Your task to perform on an android device: Search for "razer blade" on ebay, select the first entry, add it to the cart, then select checkout. Image 0: 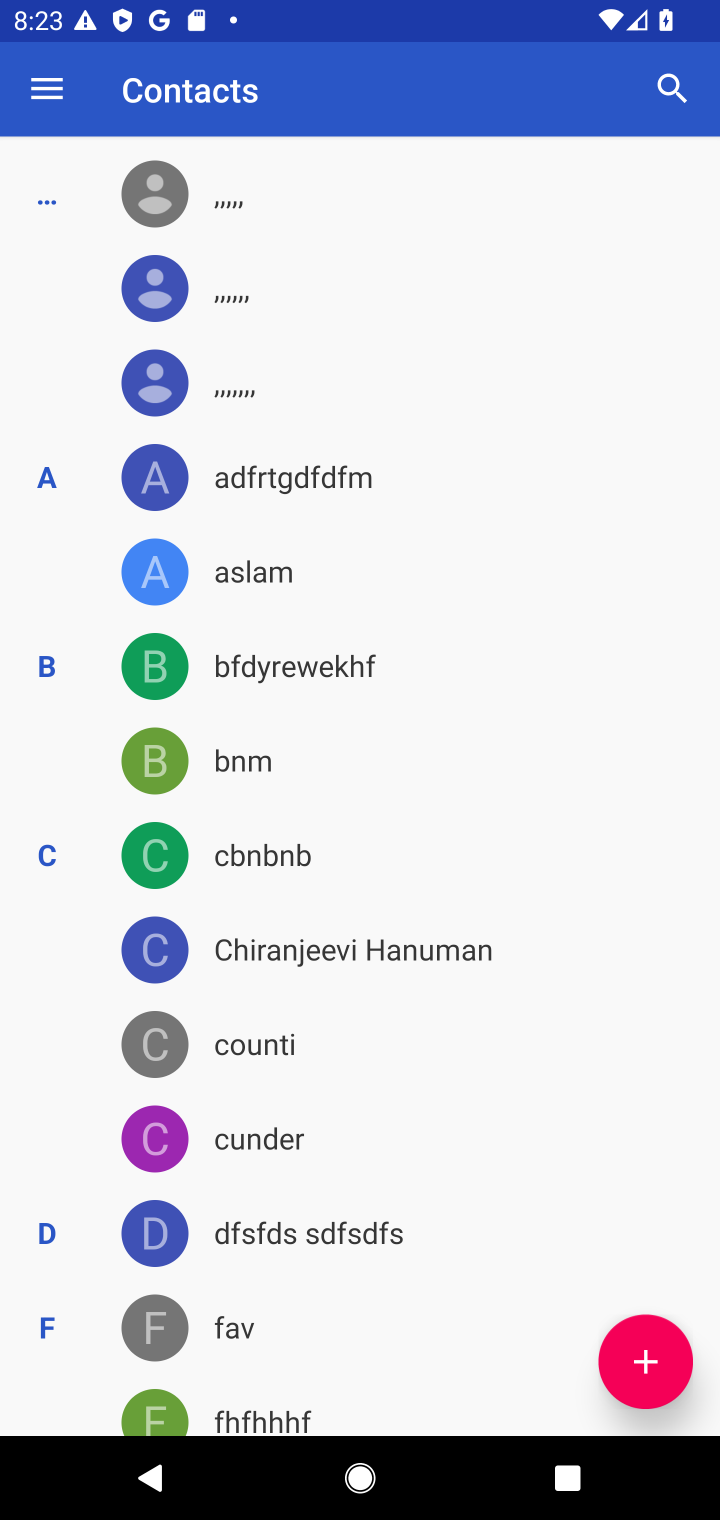
Step 0: press home button
Your task to perform on an android device: Search for "razer blade" on ebay, select the first entry, add it to the cart, then select checkout. Image 1: 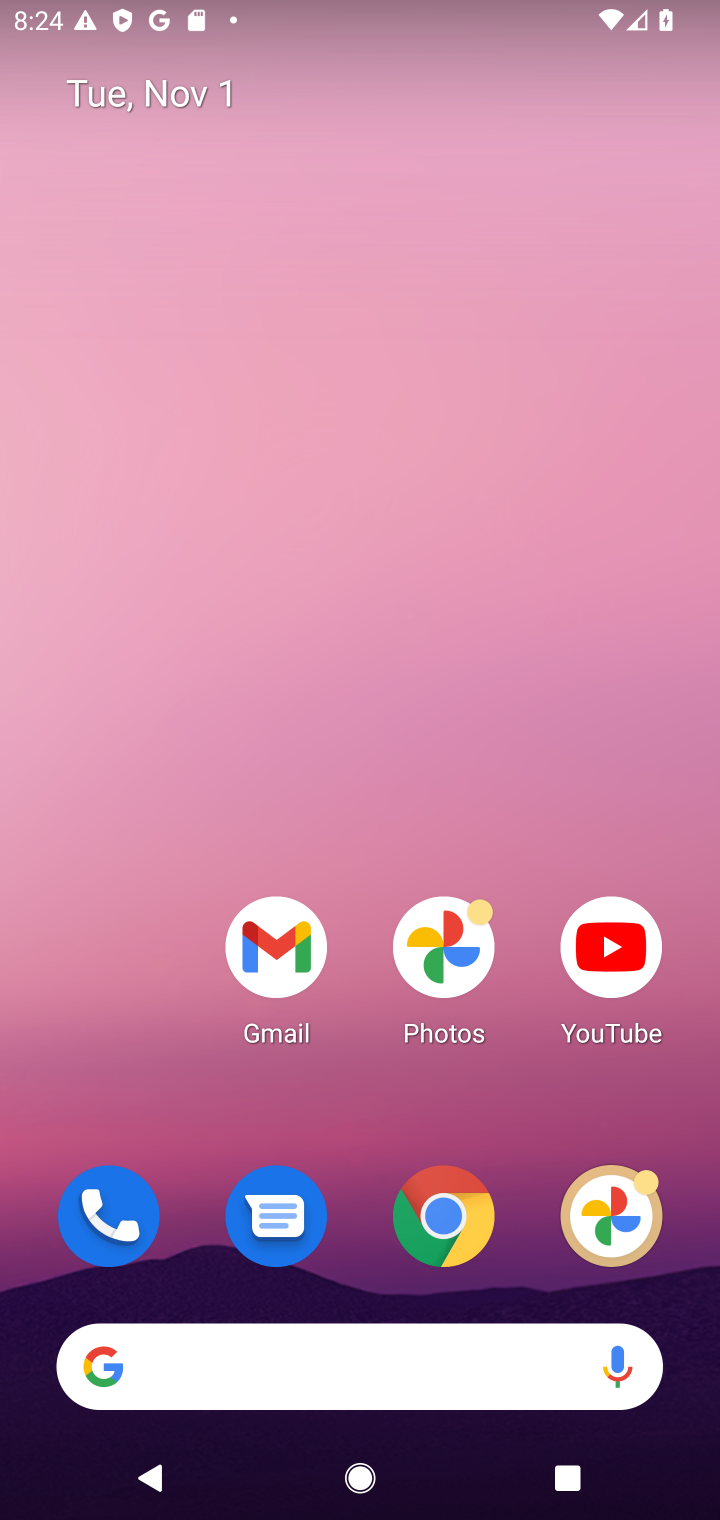
Step 1: click (427, 1224)
Your task to perform on an android device: Search for "razer blade" on ebay, select the first entry, add it to the cart, then select checkout. Image 2: 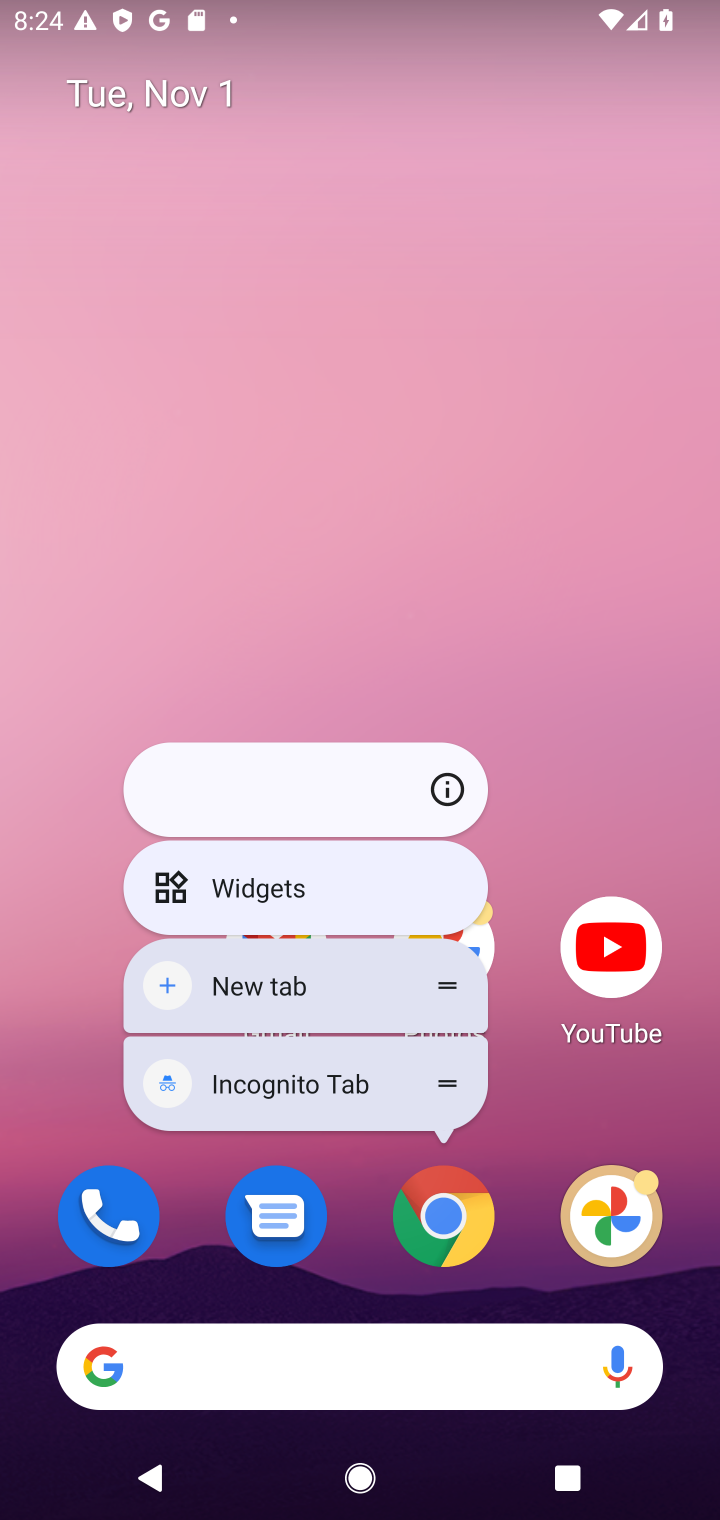
Step 2: click (458, 1192)
Your task to perform on an android device: Search for "razer blade" on ebay, select the first entry, add it to the cart, then select checkout. Image 3: 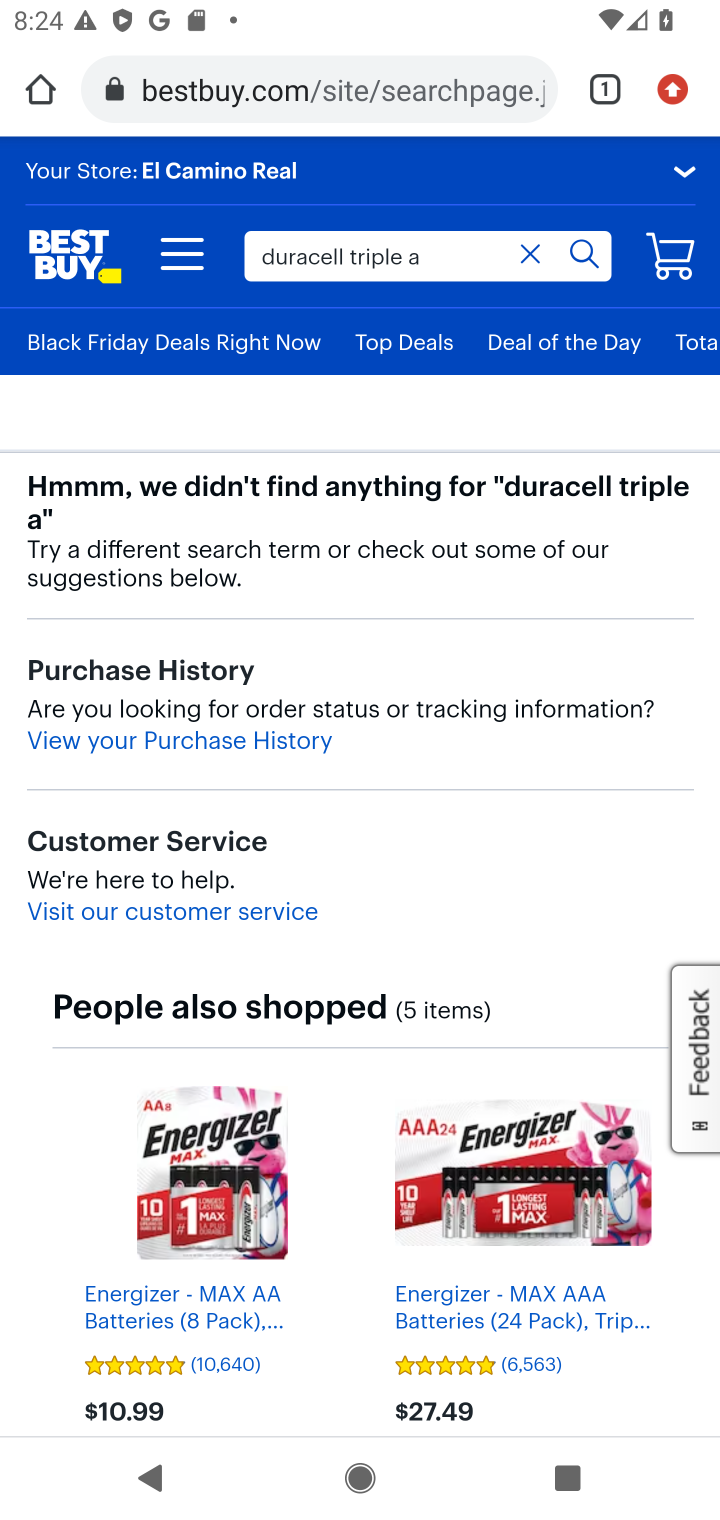
Step 3: click (361, 92)
Your task to perform on an android device: Search for "razer blade" on ebay, select the first entry, add it to the cart, then select checkout. Image 4: 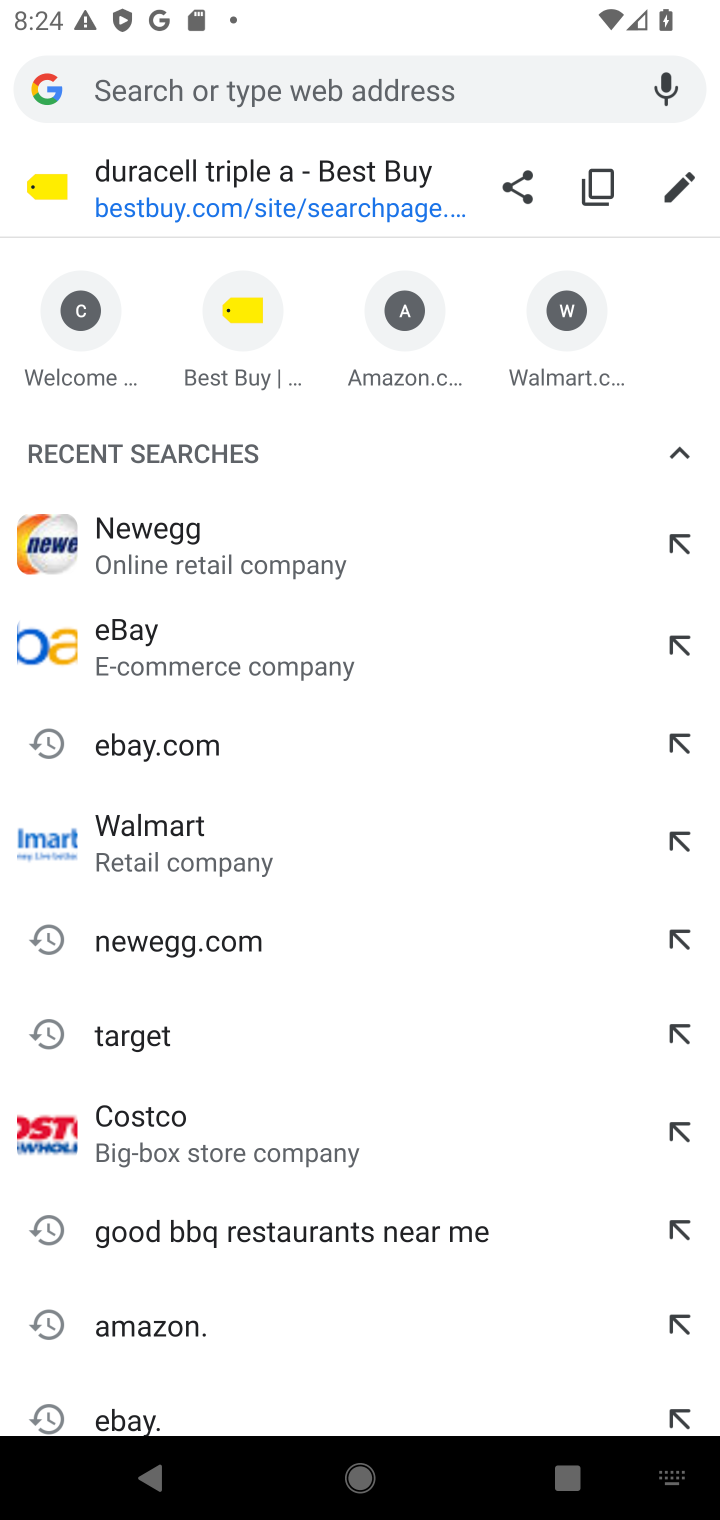
Step 4: type "ebay"
Your task to perform on an android device: Search for "razer blade" on ebay, select the first entry, add it to the cart, then select checkout. Image 5: 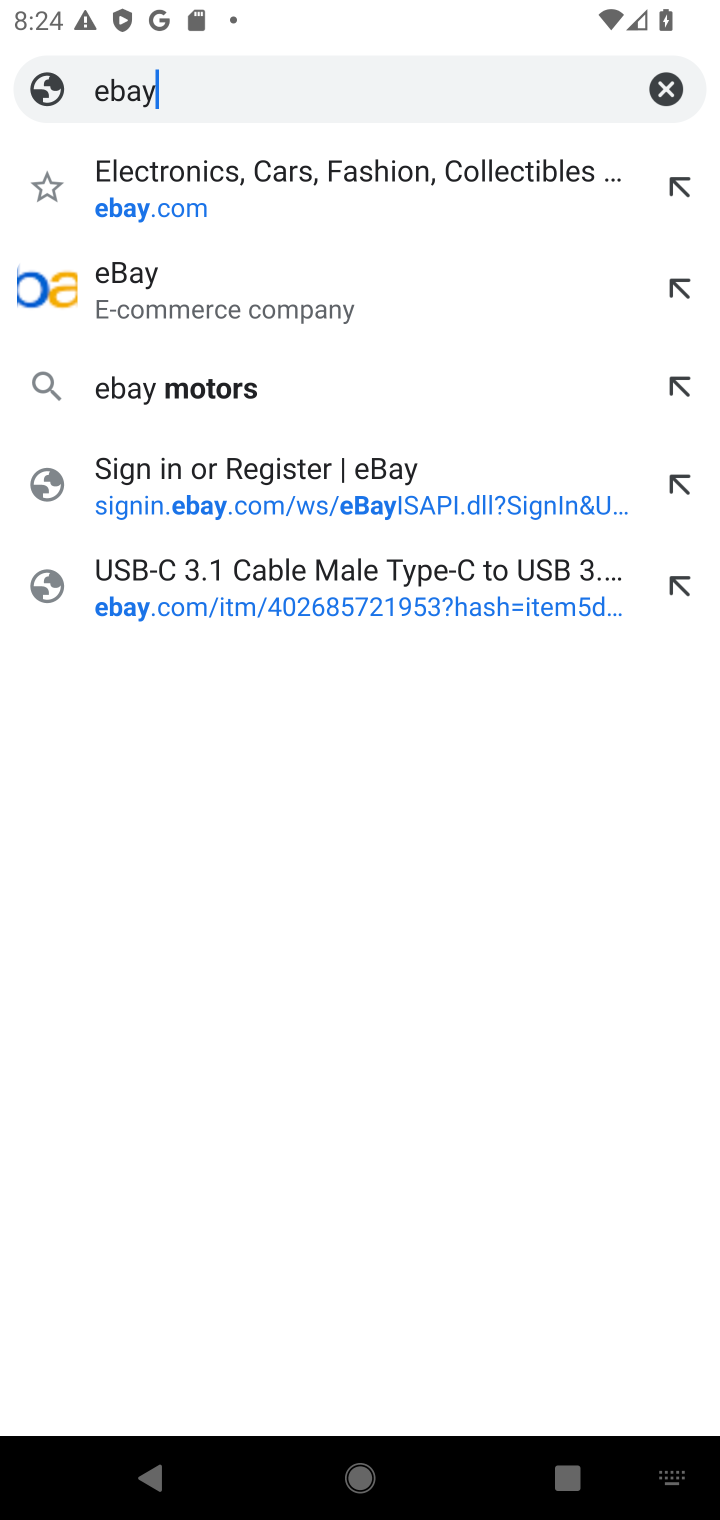
Step 5: click (316, 159)
Your task to perform on an android device: Search for "razer blade" on ebay, select the first entry, add it to the cart, then select checkout. Image 6: 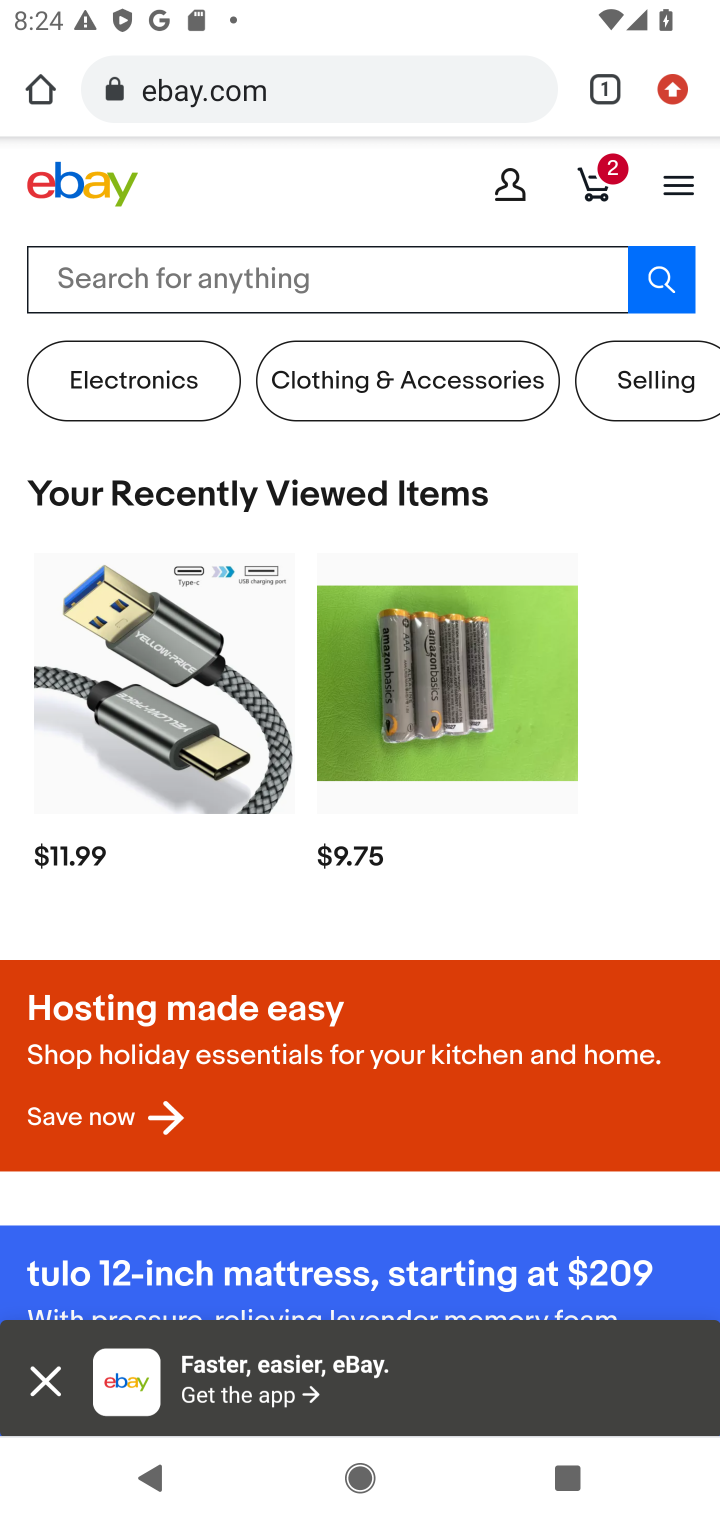
Step 6: click (407, 286)
Your task to perform on an android device: Search for "razer blade" on ebay, select the first entry, add it to the cart, then select checkout. Image 7: 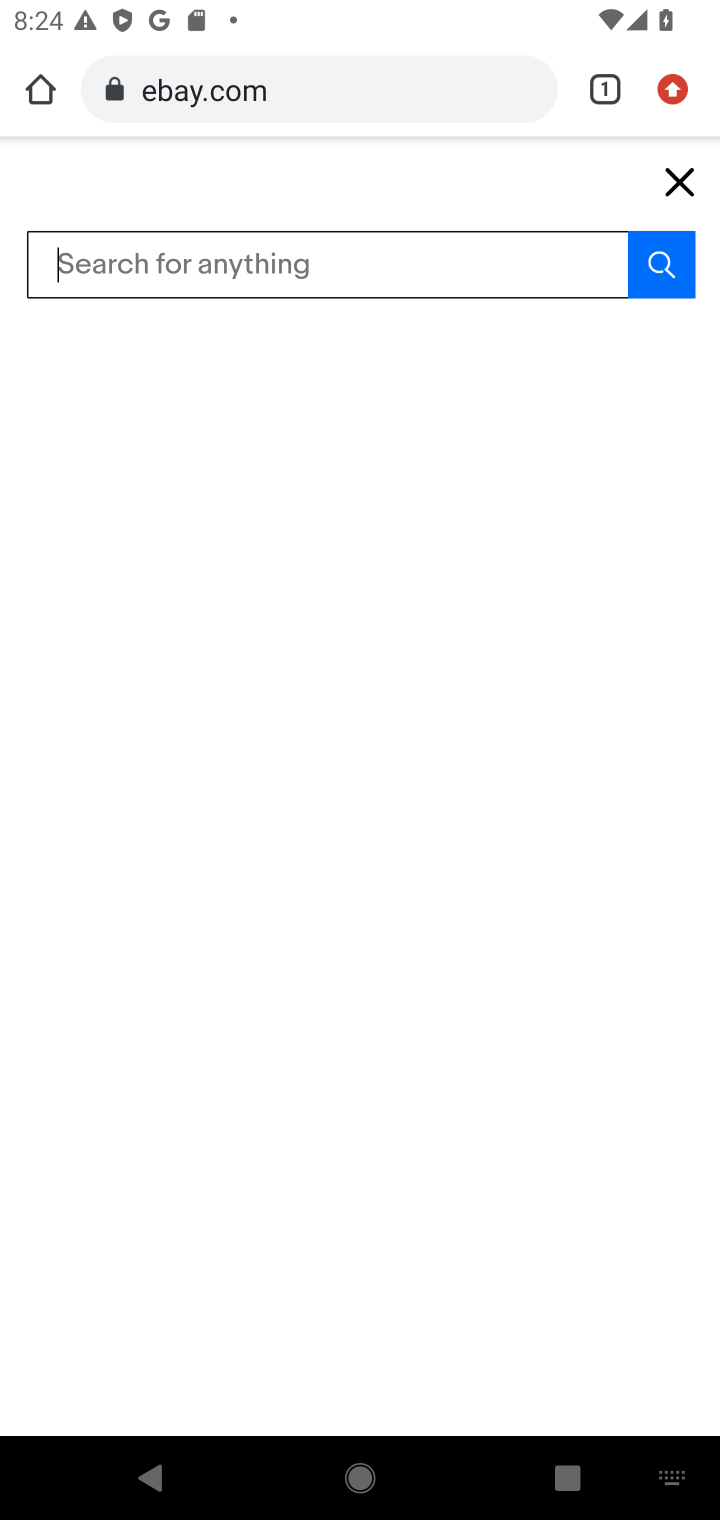
Step 7: type "razer blade"
Your task to perform on an android device: Search for "razer blade" on ebay, select the first entry, add it to the cart, then select checkout. Image 8: 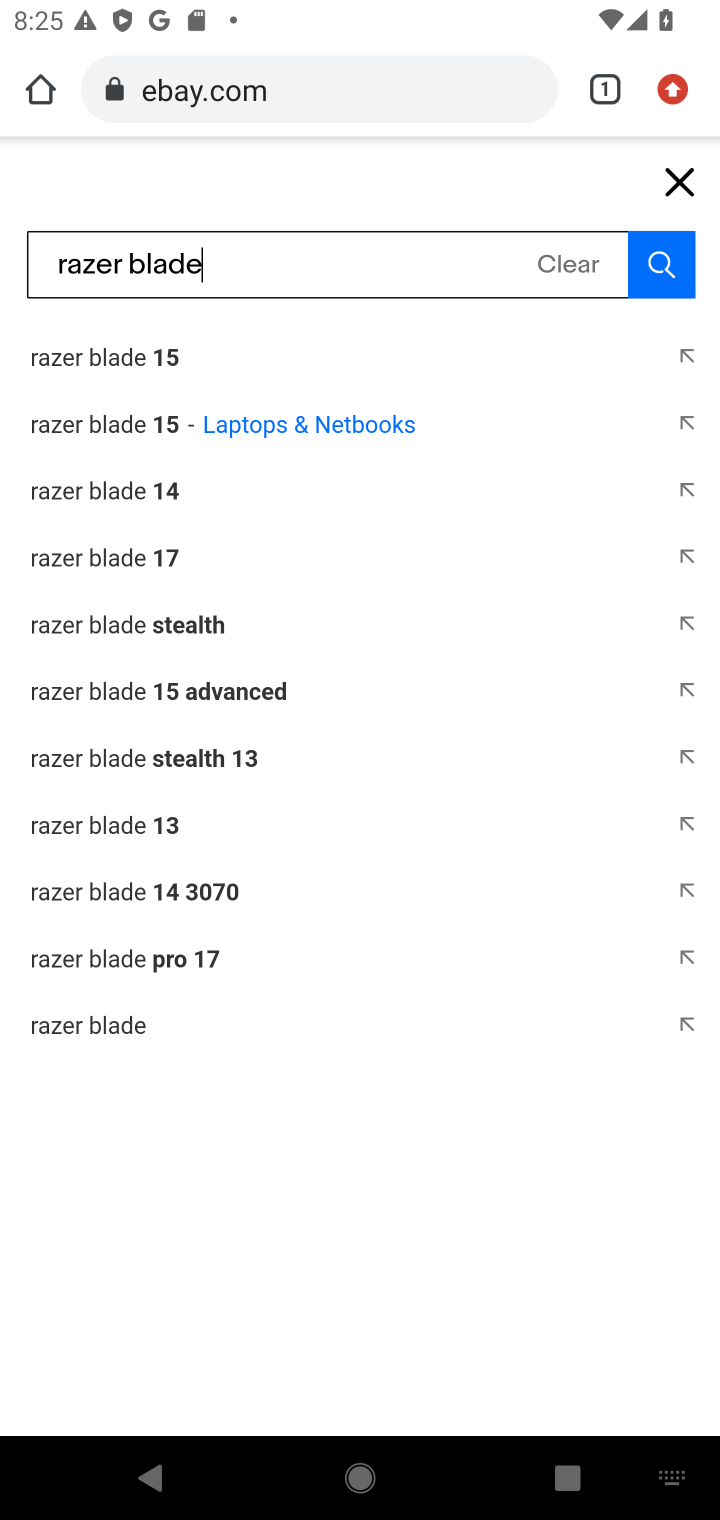
Step 8: click (650, 263)
Your task to perform on an android device: Search for "razer blade" on ebay, select the first entry, add it to the cart, then select checkout. Image 9: 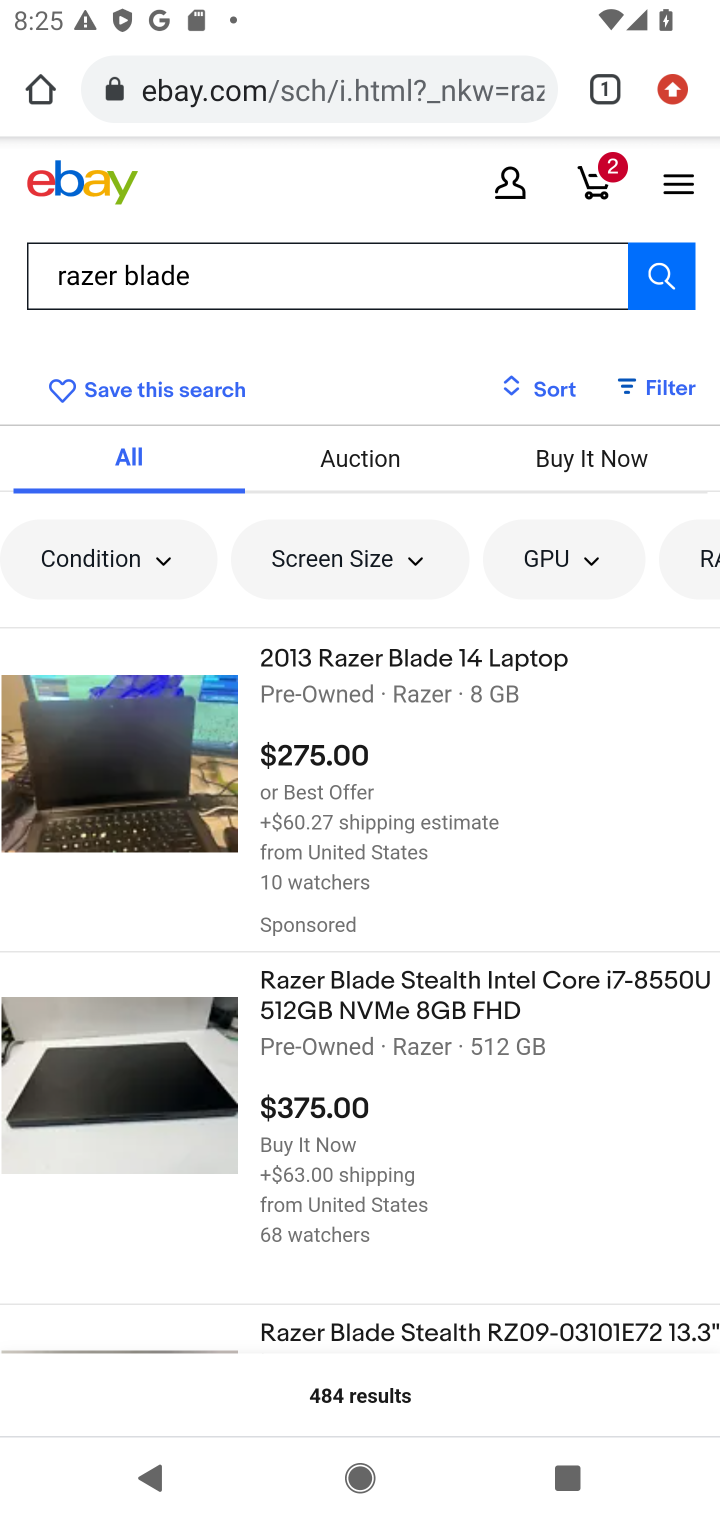
Step 9: click (493, 660)
Your task to perform on an android device: Search for "razer blade" on ebay, select the first entry, add it to the cart, then select checkout. Image 10: 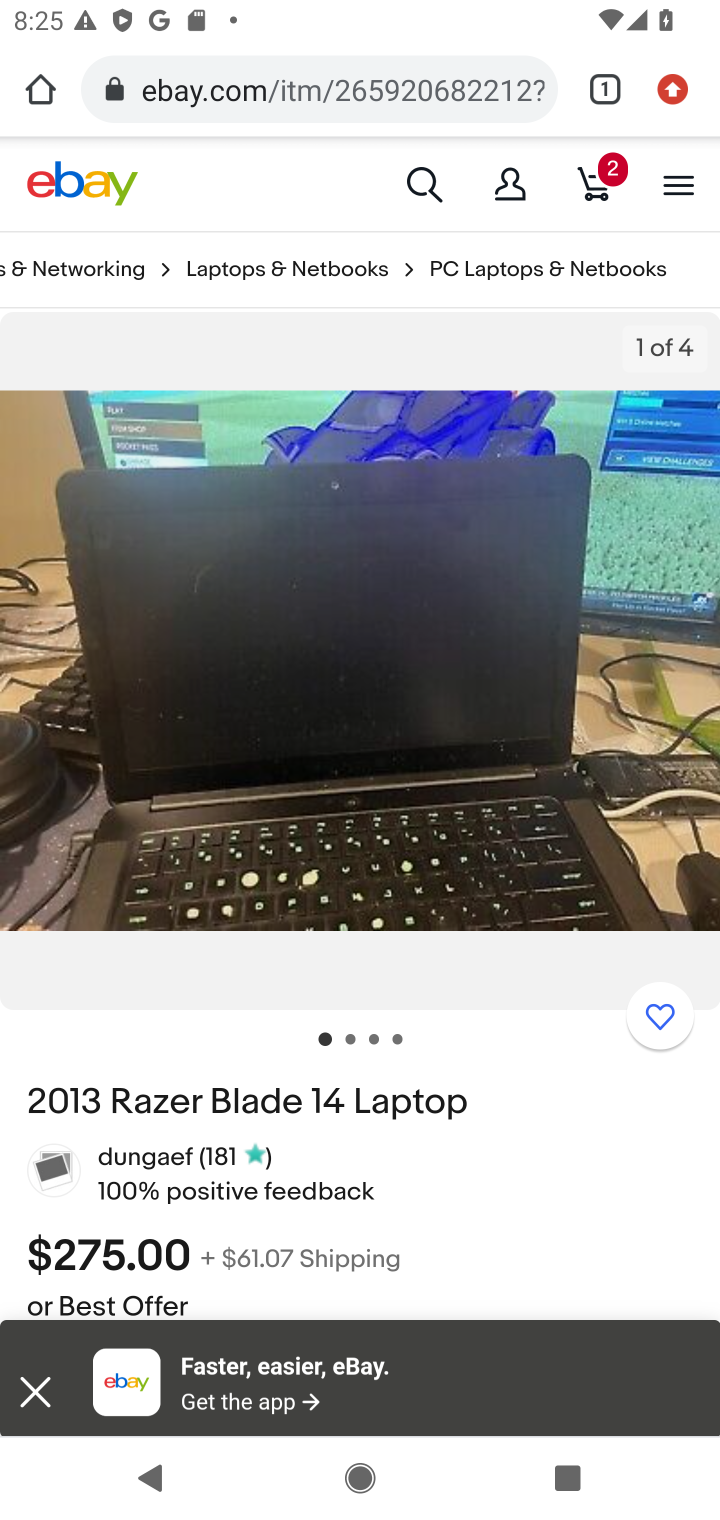
Step 10: drag from (404, 1181) to (418, 667)
Your task to perform on an android device: Search for "razer blade" on ebay, select the first entry, add it to the cart, then select checkout. Image 11: 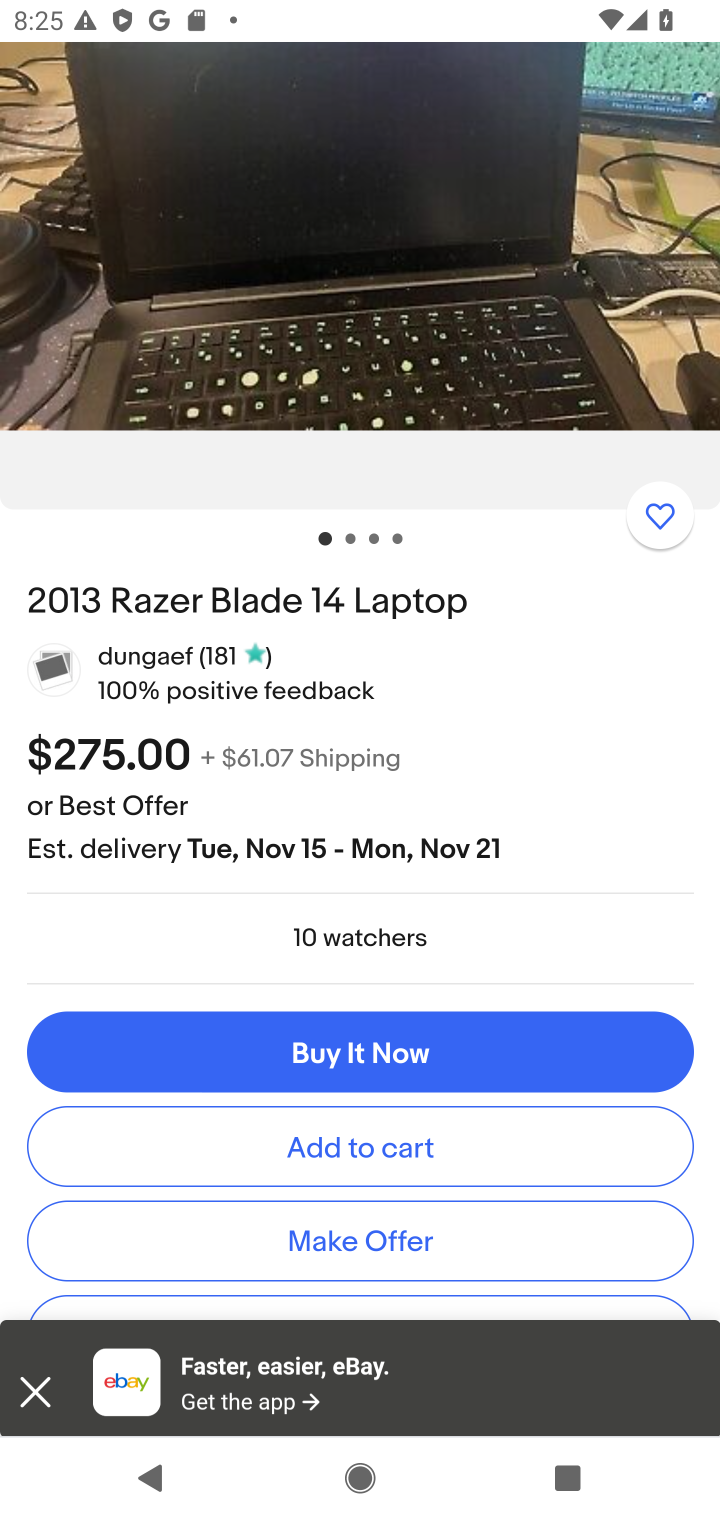
Step 11: click (447, 1141)
Your task to perform on an android device: Search for "razer blade" on ebay, select the first entry, add it to the cart, then select checkout. Image 12: 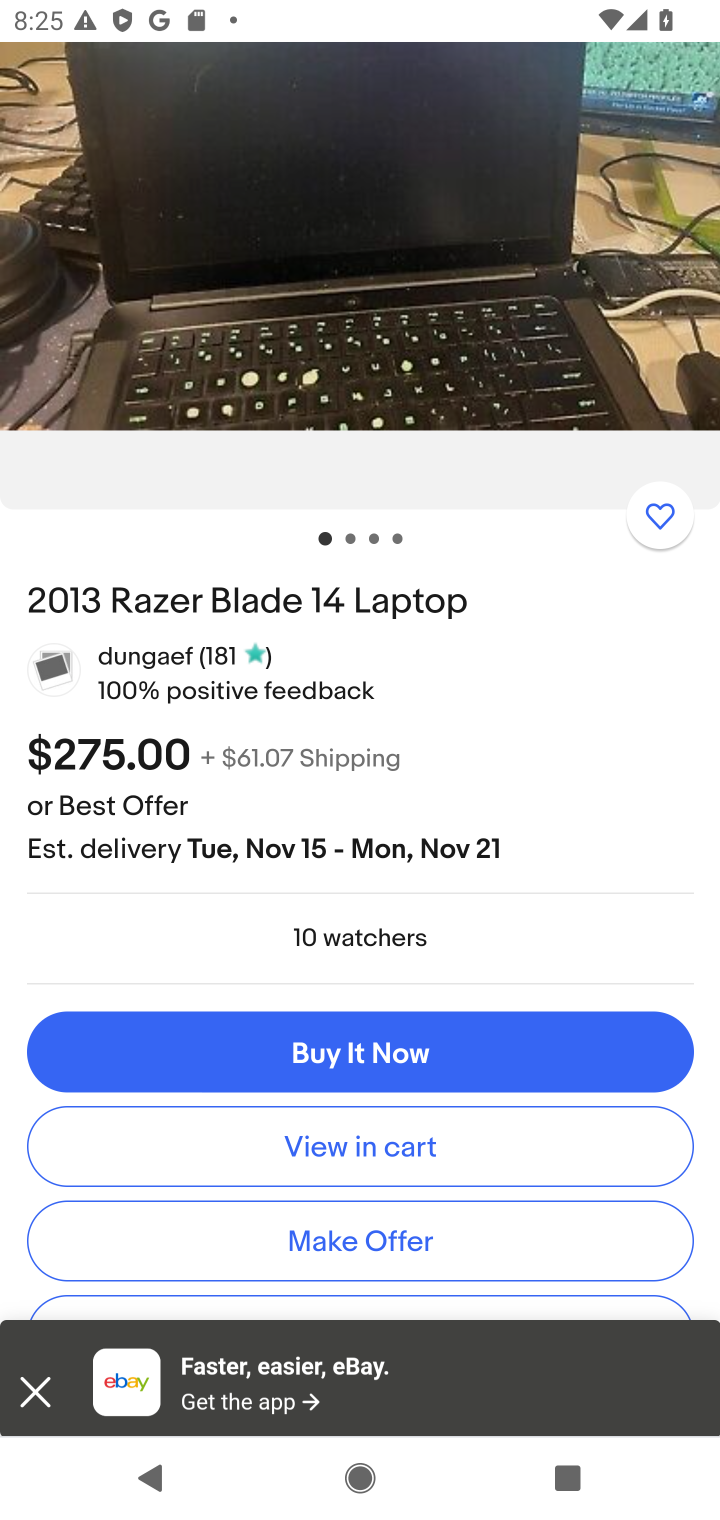
Step 12: click (462, 1138)
Your task to perform on an android device: Search for "razer blade" on ebay, select the first entry, add it to the cart, then select checkout. Image 13: 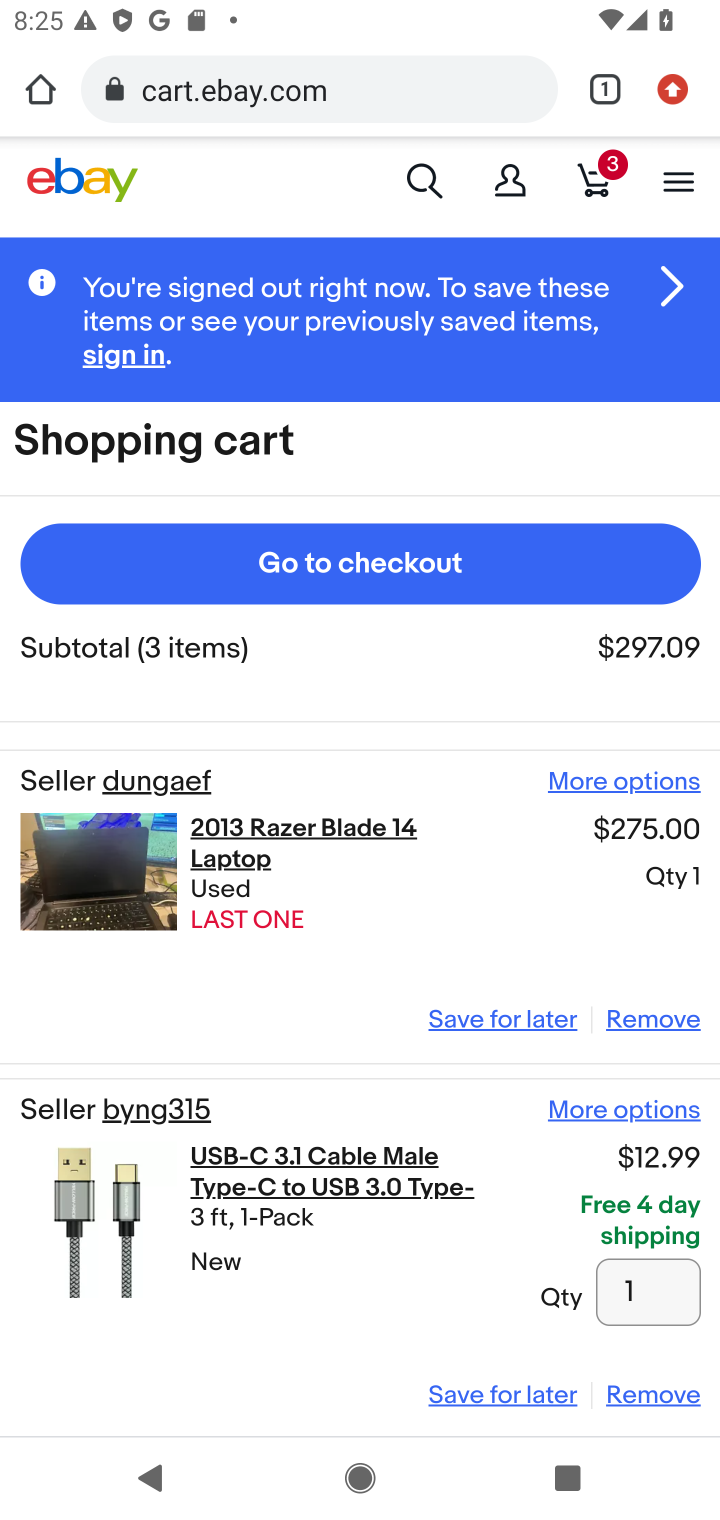
Step 13: click (439, 572)
Your task to perform on an android device: Search for "razer blade" on ebay, select the first entry, add it to the cart, then select checkout. Image 14: 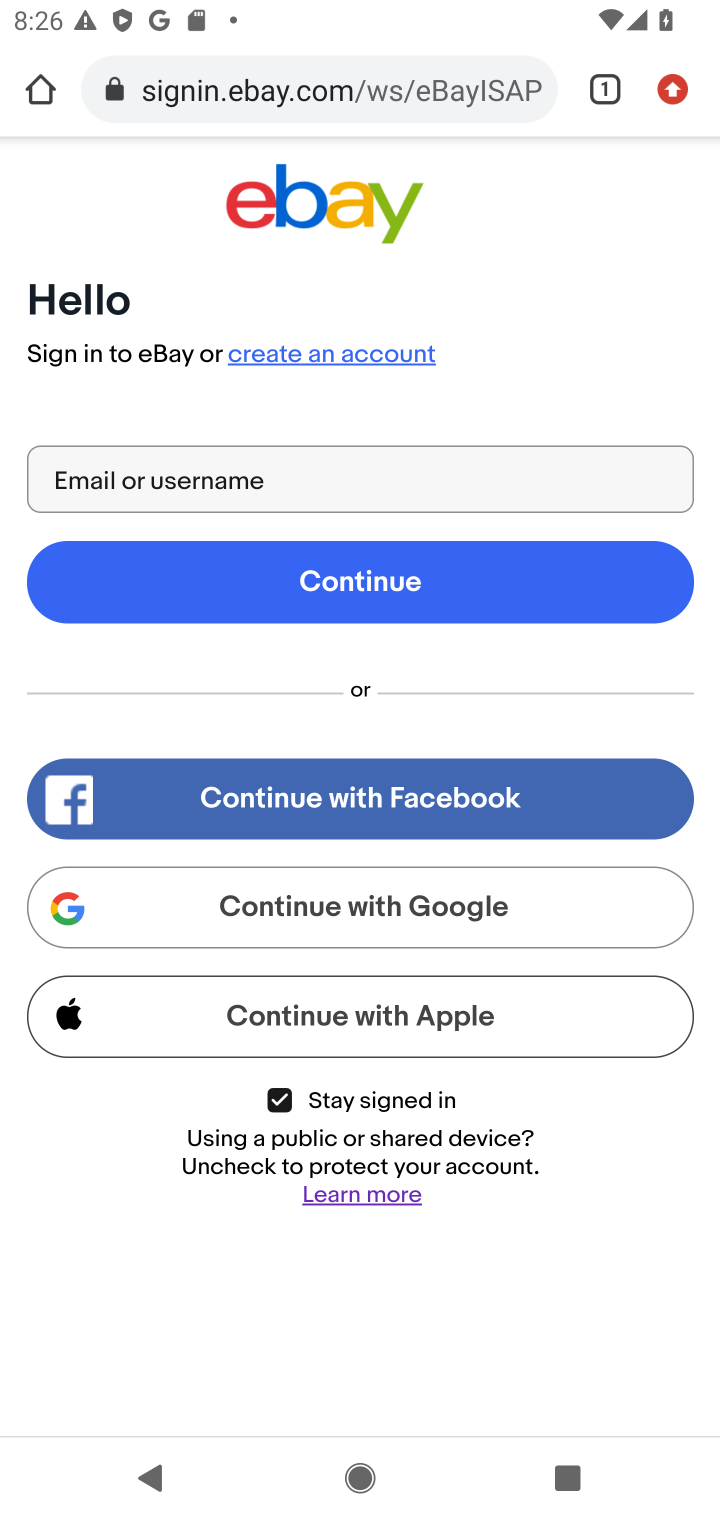
Step 14: task complete